Your task to perform on an android device: Open the calendar app, open the side menu, and click the "Day" option Image 0: 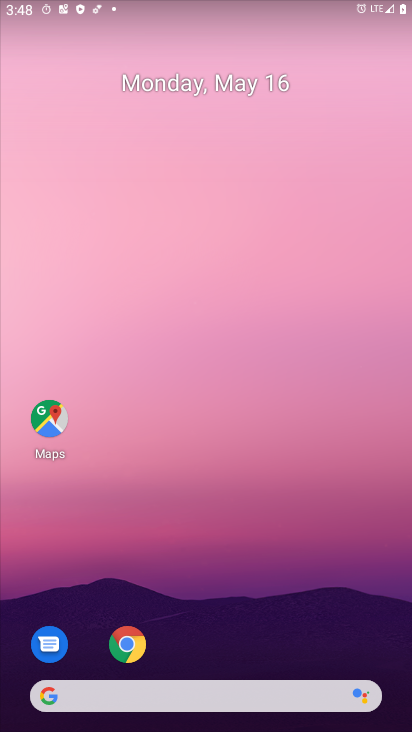
Step 0: drag from (272, 509) to (306, 136)
Your task to perform on an android device: Open the calendar app, open the side menu, and click the "Day" option Image 1: 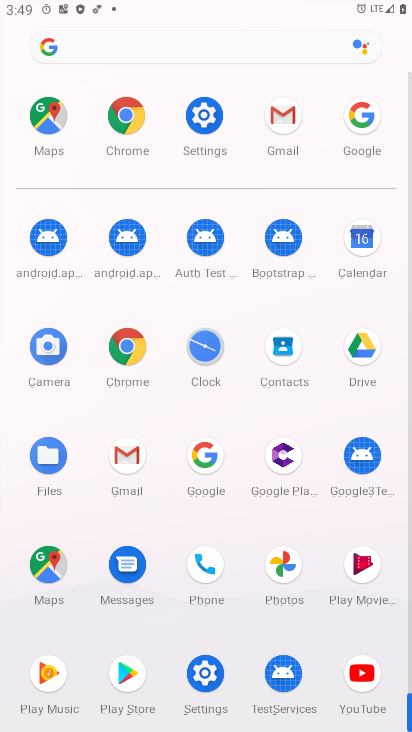
Step 1: click (349, 271)
Your task to perform on an android device: Open the calendar app, open the side menu, and click the "Day" option Image 2: 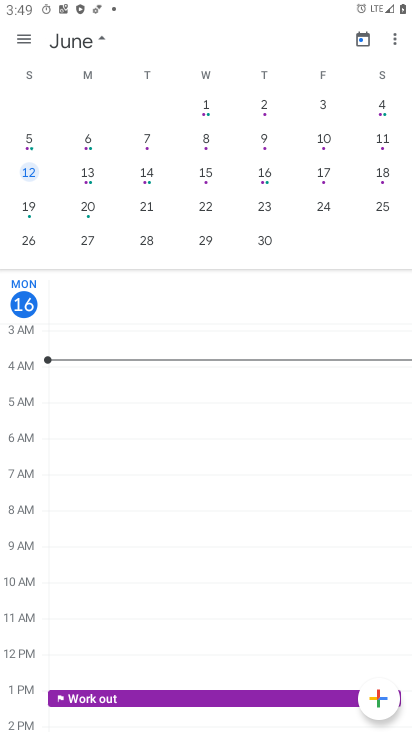
Step 2: click (28, 33)
Your task to perform on an android device: Open the calendar app, open the side menu, and click the "Day" option Image 3: 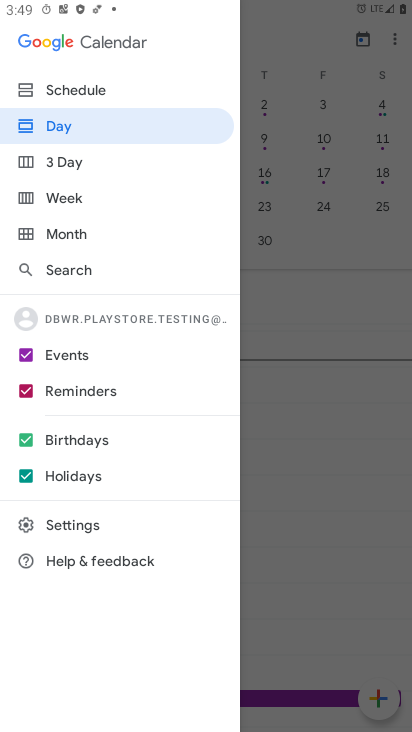
Step 3: task complete